Your task to perform on an android device: open chrome privacy settings Image 0: 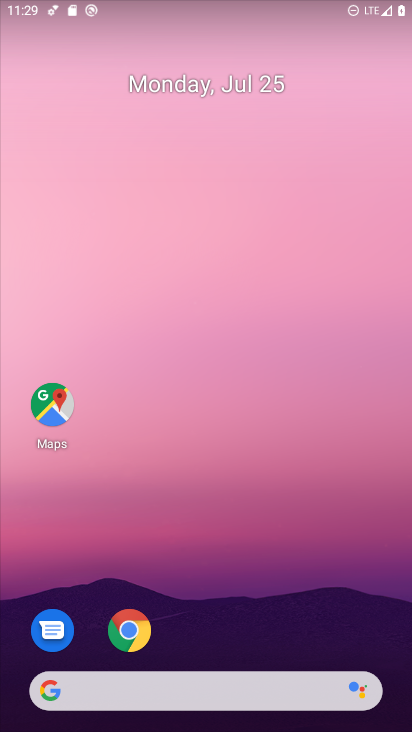
Step 0: click (131, 640)
Your task to perform on an android device: open chrome privacy settings Image 1: 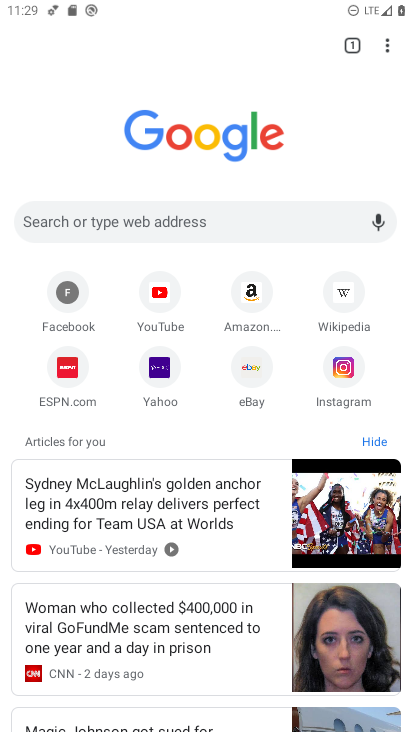
Step 1: click (387, 50)
Your task to perform on an android device: open chrome privacy settings Image 2: 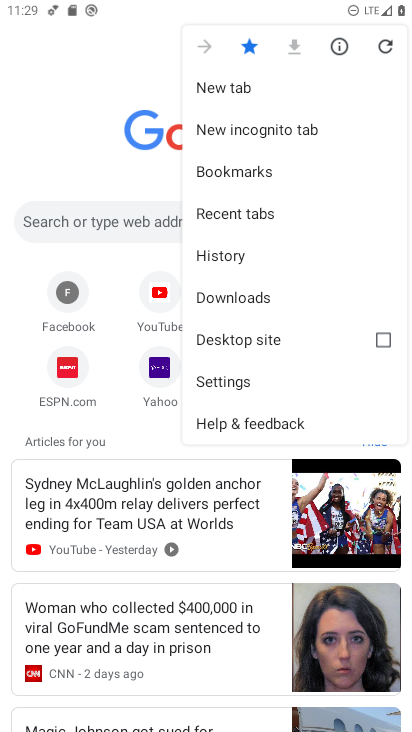
Step 2: click (218, 378)
Your task to perform on an android device: open chrome privacy settings Image 3: 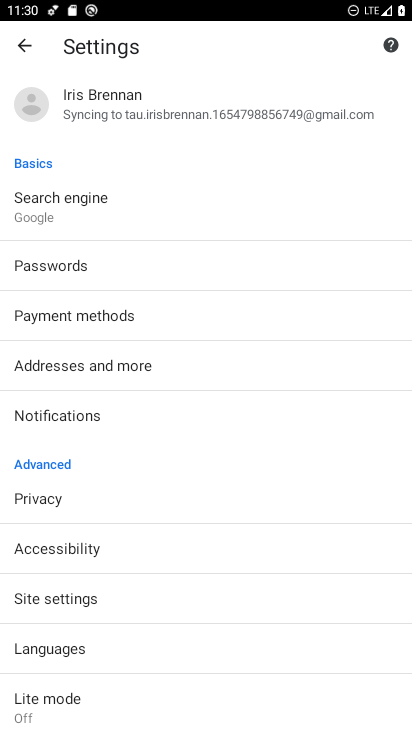
Step 3: click (39, 500)
Your task to perform on an android device: open chrome privacy settings Image 4: 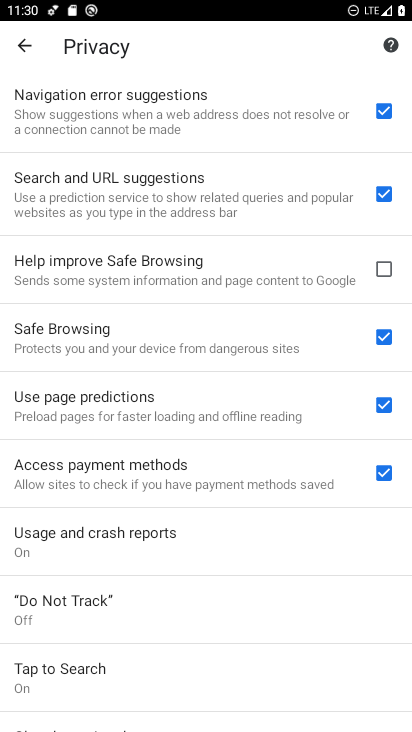
Step 4: task complete